Your task to perform on an android device: Open the calendar app, open the side menu, and click the "Day" option Image 0: 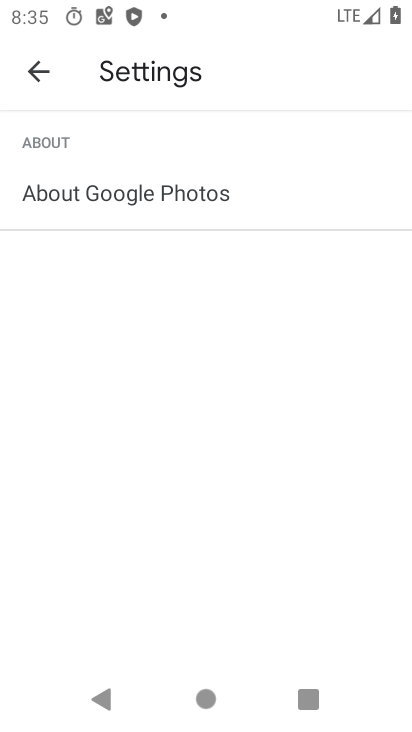
Step 0: press home button
Your task to perform on an android device: Open the calendar app, open the side menu, and click the "Day" option Image 1: 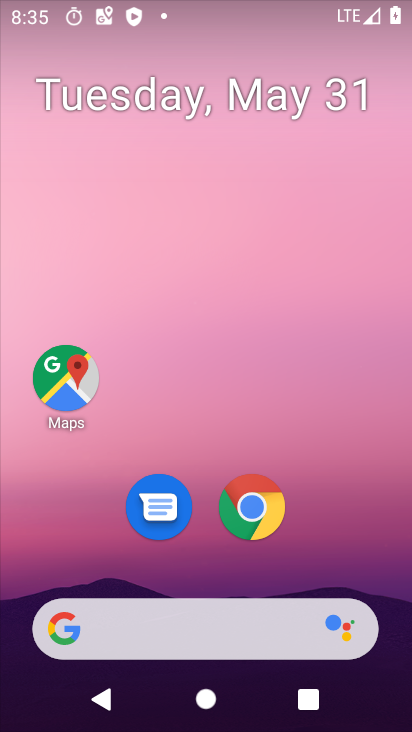
Step 1: drag from (78, 504) to (223, 178)
Your task to perform on an android device: Open the calendar app, open the side menu, and click the "Day" option Image 2: 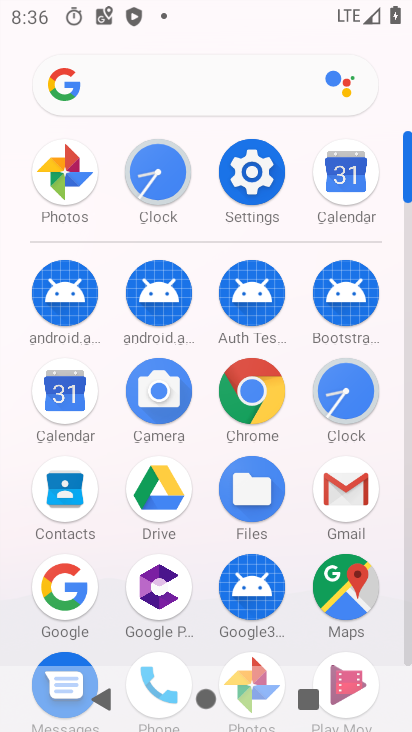
Step 2: click (53, 397)
Your task to perform on an android device: Open the calendar app, open the side menu, and click the "Day" option Image 3: 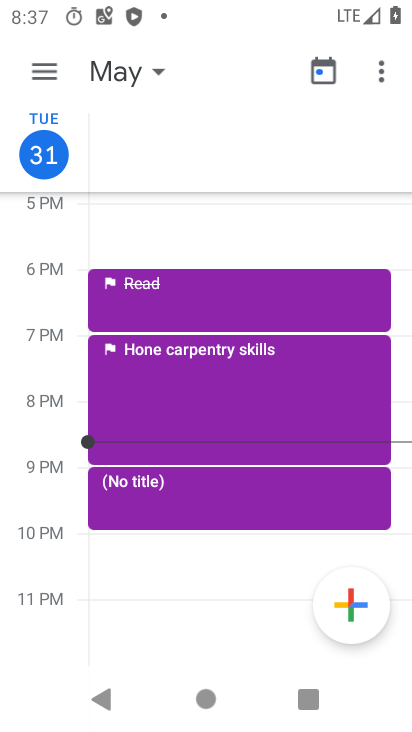
Step 3: click (30, 71)
Your task to perform on an android device: Open the calendar app, open the side menu, and click the "Day" option Image 4: 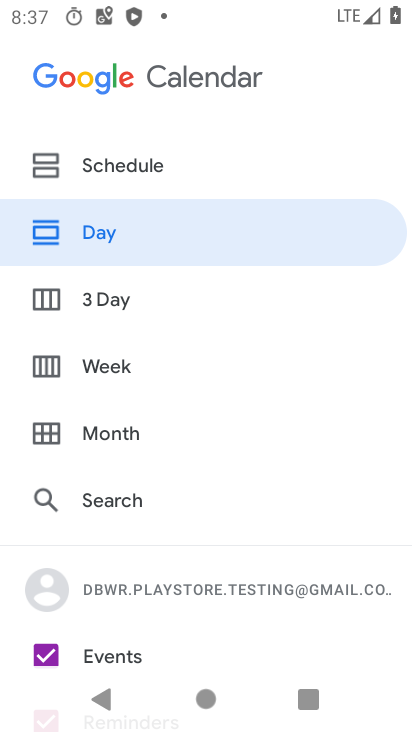
Step 4: click (69, 241)
Your task to perform on an android device: Open the calendar app, open the side menu, and click the "Day" option Image 5: 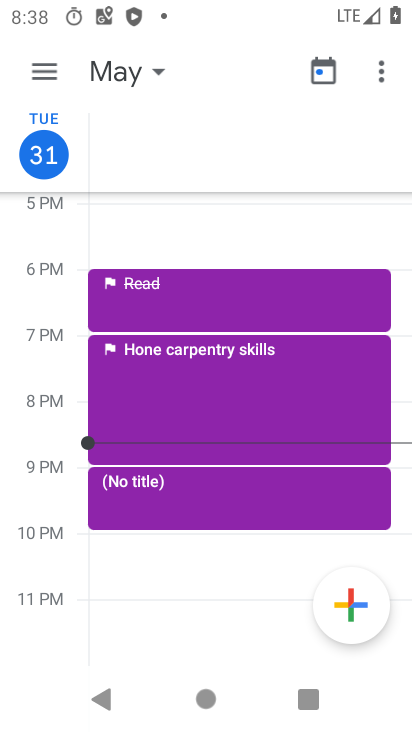
Step 5: click (59, 71)
Your task to perform on an android device: Open the calendar app, open the side menu, and click the "Day" option Image 6: 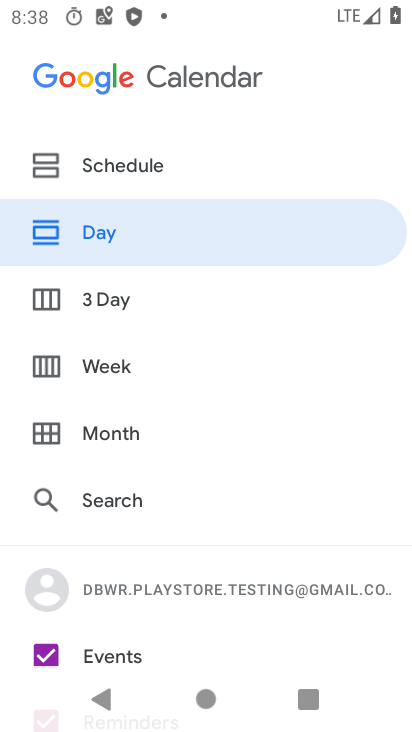
Step 6: click (116, 234)
Your task to perform on an android device: Open the calendar app, open the side menu, and click the "Day" option Image 7: 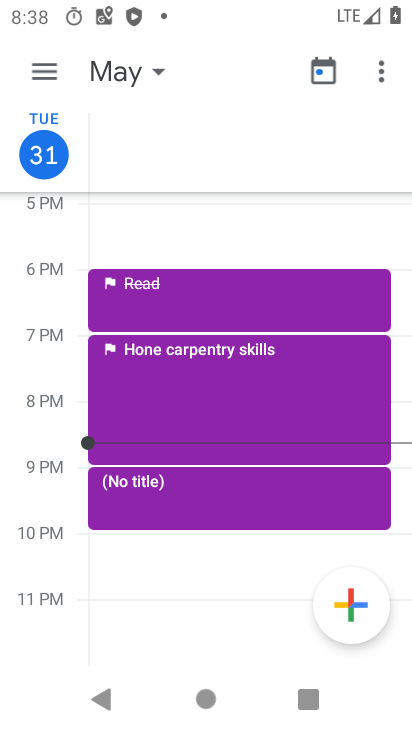
Step 7: task complete